Your task to perform on an android device: Open the stopwatch Image 0: 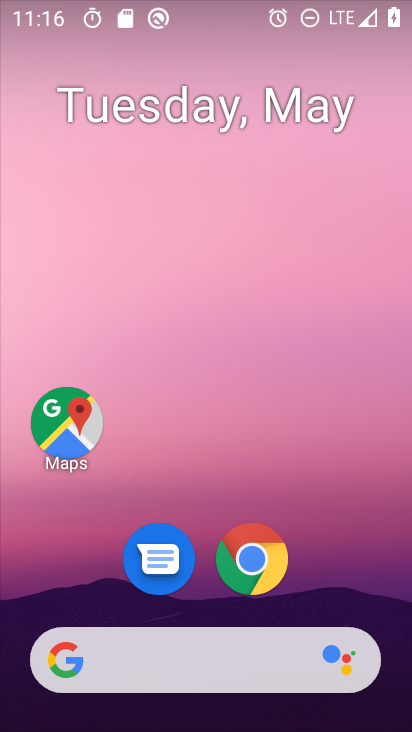
Step 0: drag from (370, 355) to (311, 47)
Your task to perform on an android device: Open the stopwatch Image 1: 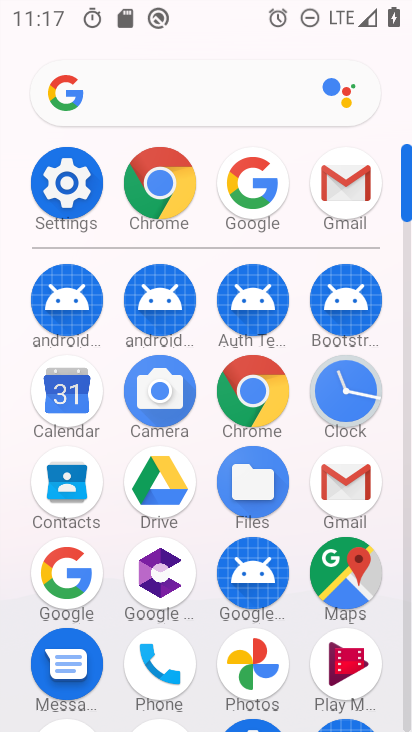
Step 1: click (346, 398)
Your task to perform on an android device: Open the stopwatch Image 2: 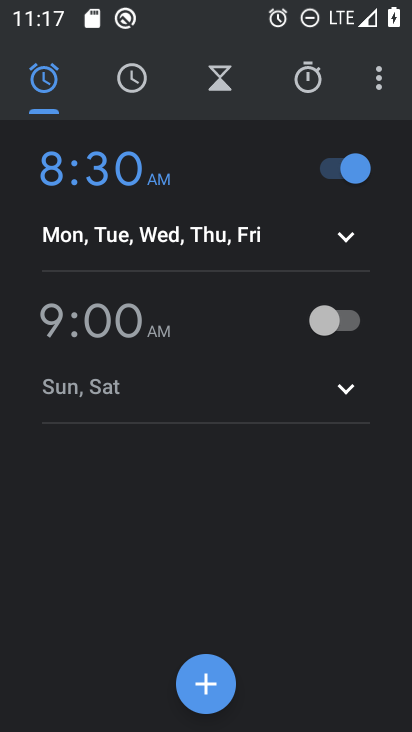
Step 2: click (322, 101)
Your task to perform on an android device: Open the stopwatch Image 3: 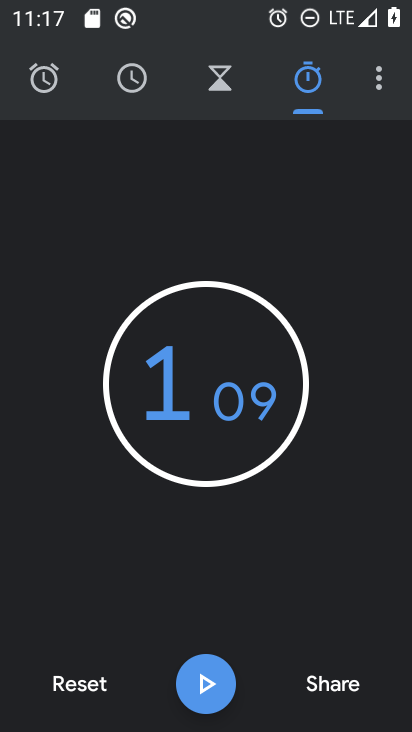
Step 3: task complete